Your task to perform on an android device: Go to calendar. Show me events next week Image 0: 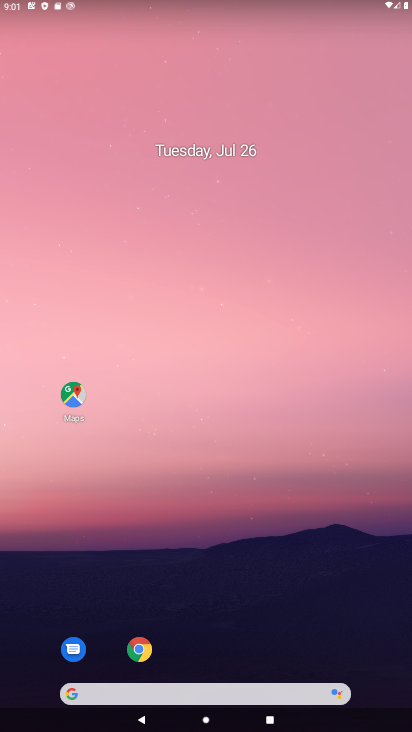
Step 0: drag from (183, 620) to (188, 44)
Your task to perform on an android device: Go to calendar. Show me events next week Image 1: 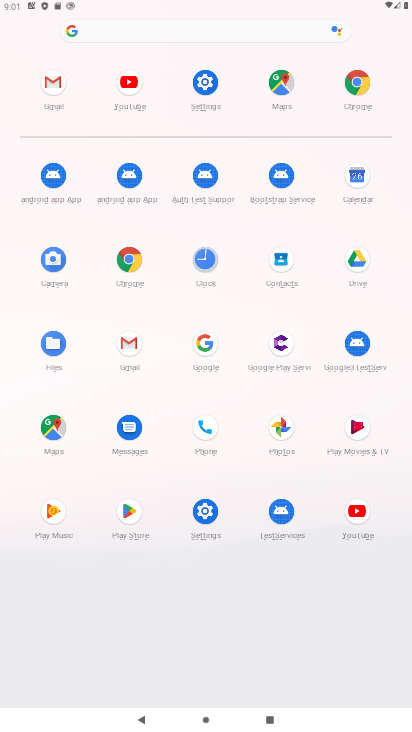
Step 1: click (357, 164)
Your task to perform on an android device: Go to calendar. Show me events next week Image 2: 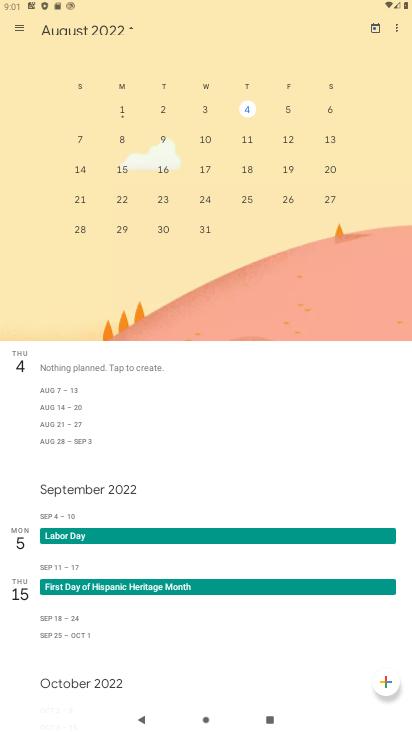
Step 2: click (366, 25)
Your task to perform on an android device: Go to calendar. Show me events next week Image 3: 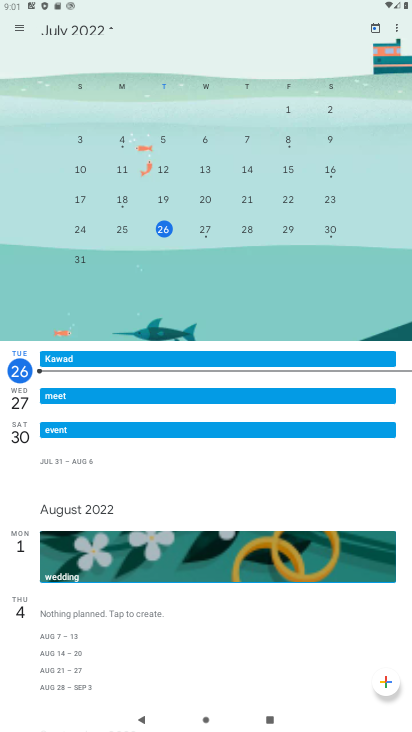
Step 3: drag from (308, 244) to (17, 203)
Your task to perform on an android device: Go to calendar. Show me events next week Image 4: 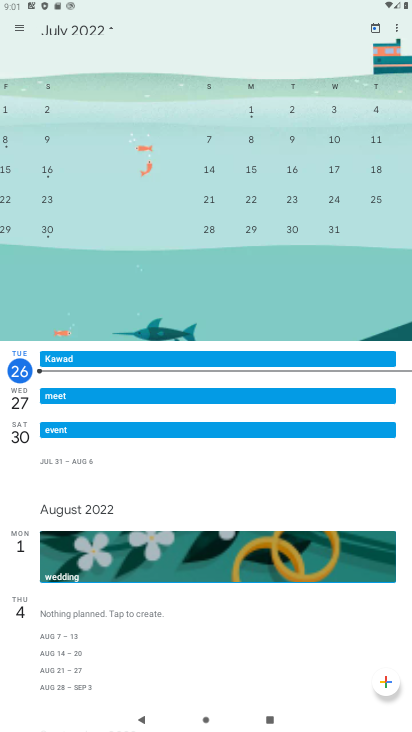
Step 4: drag from (118, 198) to (411, 185)
Your task to perform on an android device: Go to calendar. Show me events next week Image 5: 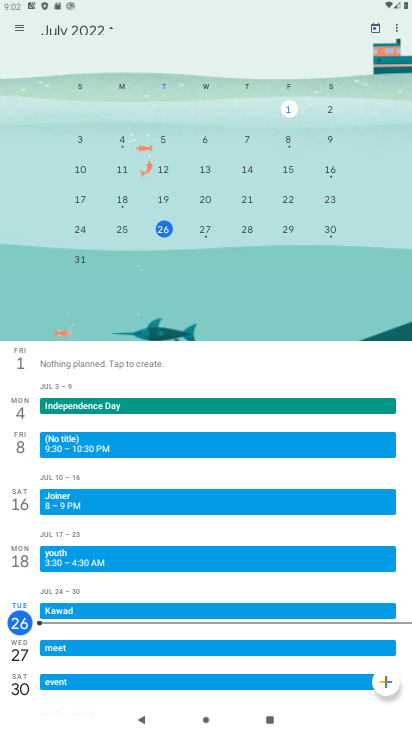
Step 5: click (72, 258)
Your task to perform on an android device: Go to calendar. Show me events next week Image 6: 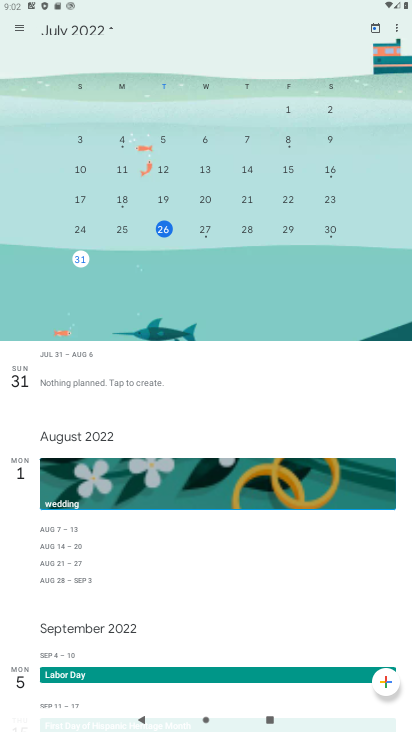
Step 6: task complete